Your task to perform on an android device: see tabs open on other devices in the chrome app Image 0: 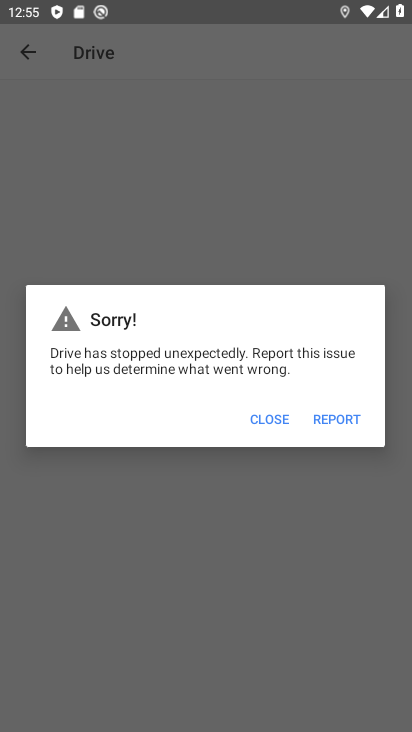
Step 0: press home button
Your task to perform on an android device: see tabs open on other devices in the chrome app Image 1: 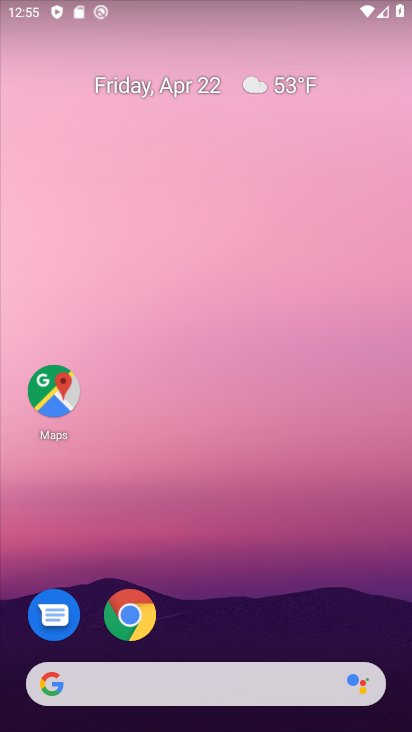
Step 1: click (130, 605)
Your task to perform on an android device: see tabs open on other devices in the chrome app Image 2: 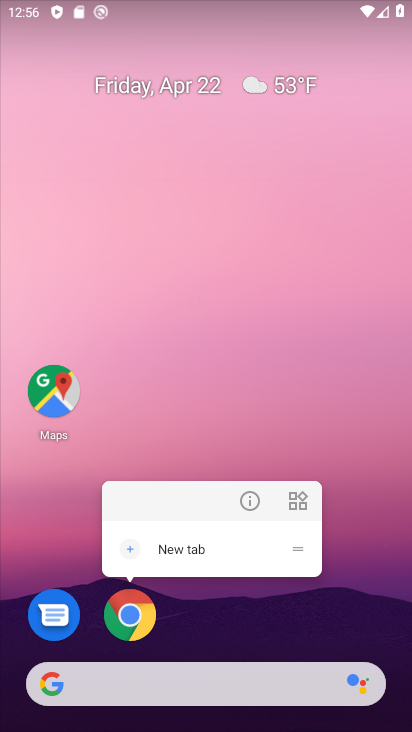
Step 2: click (145, 609)
Your task to perform on an android device: see tabs open on other devices in the chrome app Image 3: 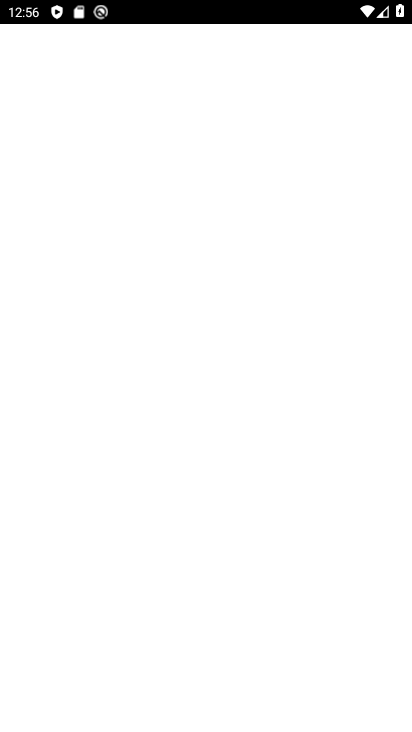
Step 3: click (145, 609)
Your task to perform on an android device: see tabs open on other devices in the chrome app Image 4: 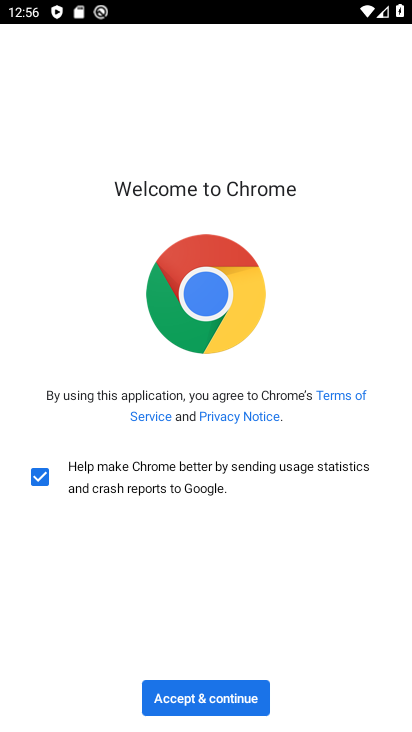
Step 4: click (250, 690)
Your task to perform on an android device: see tabs open on other devices in the chrome app Image 5: 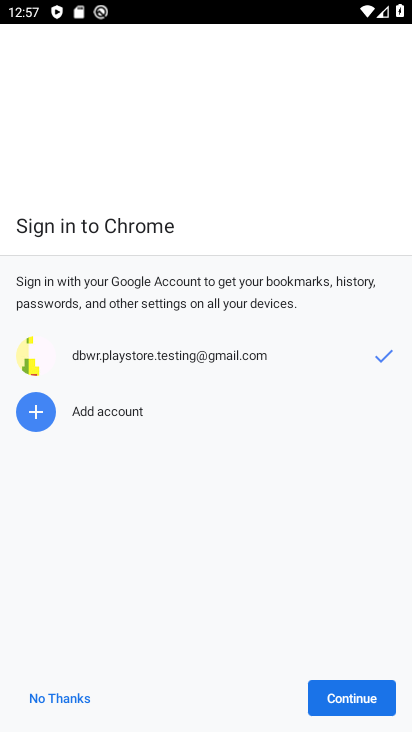
Step 5: click (329, 694)
Your task to perform on an android device: see tabs open on other devices in the chrome app Image 6: 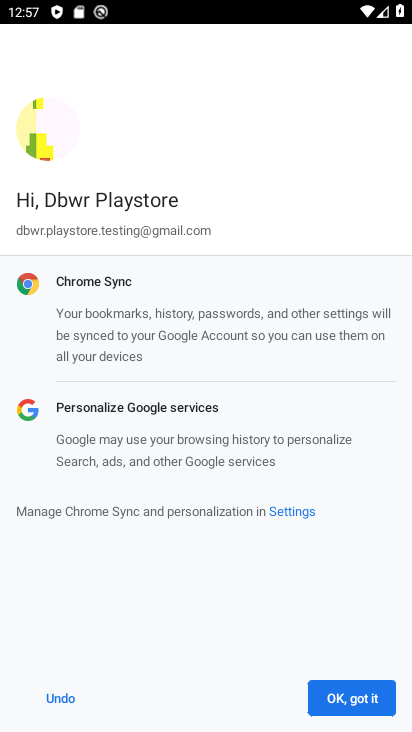
Step 6: click (374, 704)
Your task to perform on an android device: see tabs open on other devices in the chrome app Image 7: 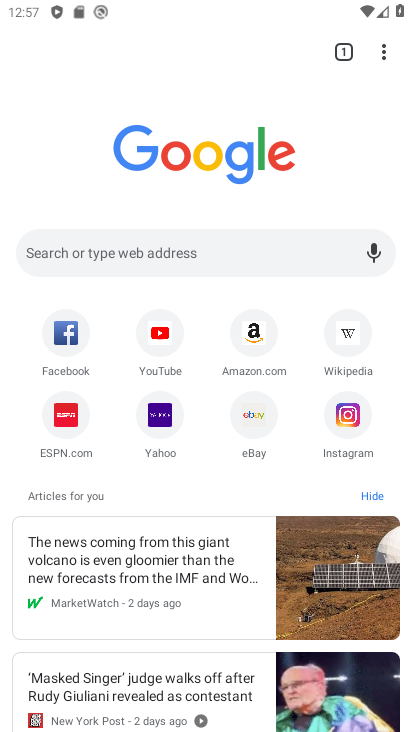
Step 7: click (388, 47)
Your task to perform on an android device: see tabs open on other devices in the chrome app Image 8: 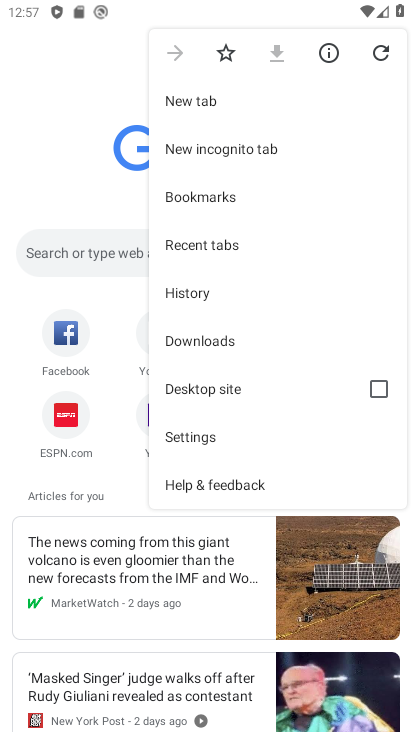
Step 8: click (247, 241)
Your task to perform on an android device: see tabs open on other devices in the chrome app Image 9: 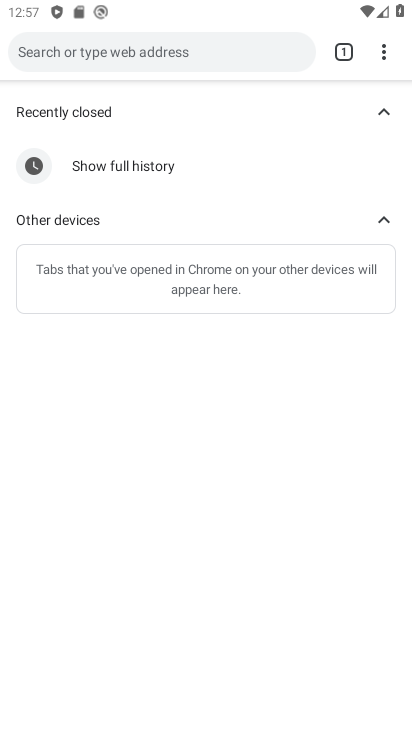
Step 9: task complete